Your task to perform on an android device: turn pop-ups on in chrome Image 0: 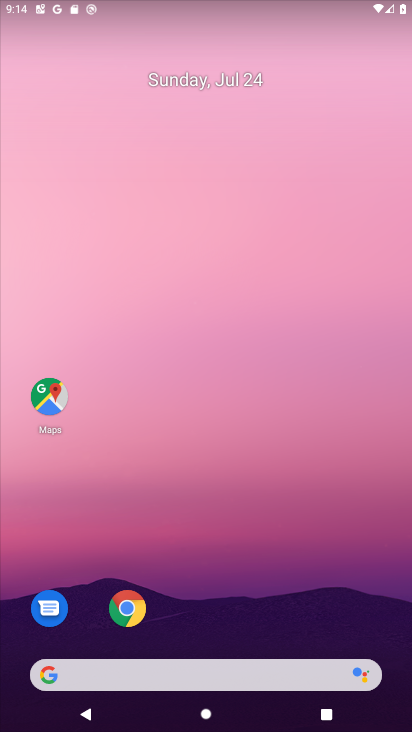
Step 0: click (94, 609)
Your task to perform on an android device: turn pop-ups on in chrome Image 1: 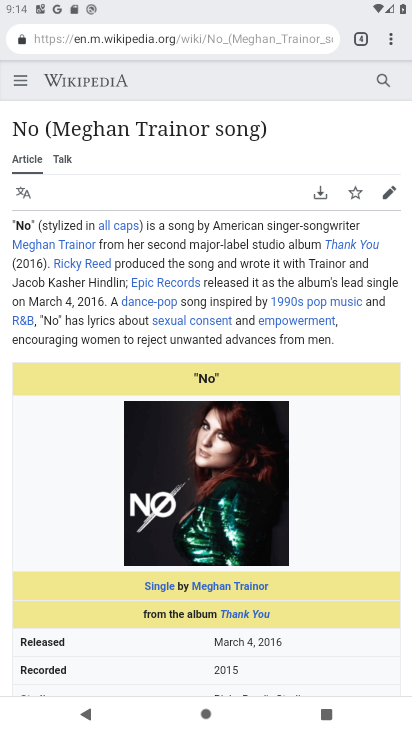
Step 1: click (136, 605)
Your task to perform on an android device: turn pop-ups on in chrome Image 2: 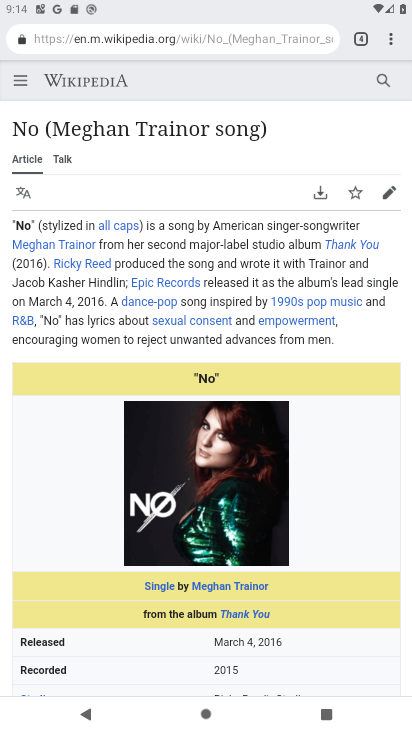
Step 2: click (135, 617)
Your task to perform on an android device: turn pop-ups on in chrome Image 3: 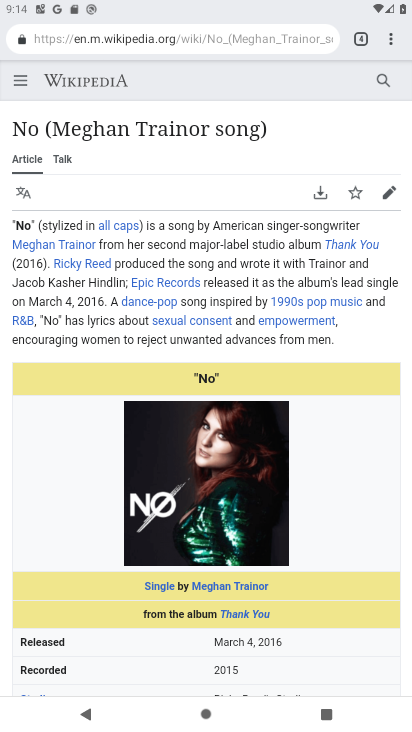
Step 3: click (135, 617)
Your task to perform on an android device: turn pop-ups on in chrome Image 4: 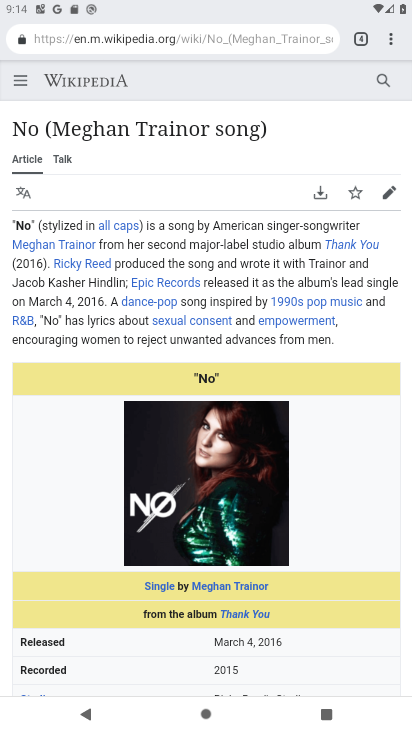
Step 4: click (400, 34)
Your task to perform on an android device: turn pop-ups on in chrome Image 5: 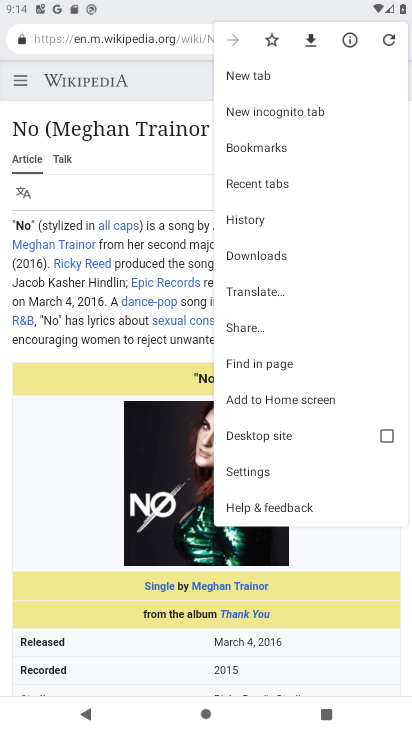
Step 5: click (271, 474)
Your task to perform on an android device: turn pop-ups on in chrome Image 6: 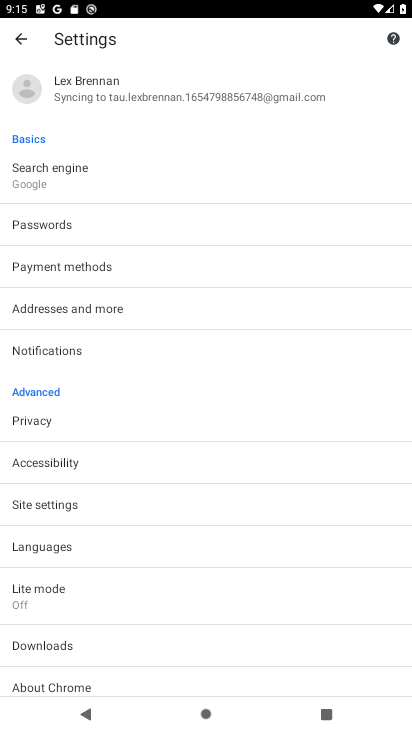
Step 6: click (76, 512)
Your task to perform on an android device: turn pop-ups on in chrome Image 7: 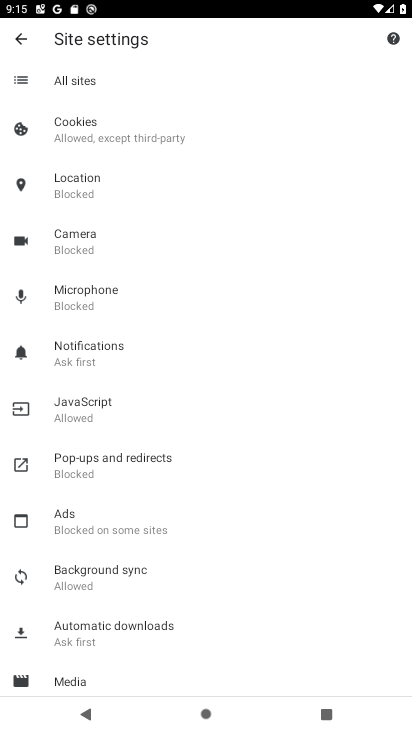
Step 7: click (145, 469)
Your task to perform on an android device: turn pop-ups on in chrome Image 8: 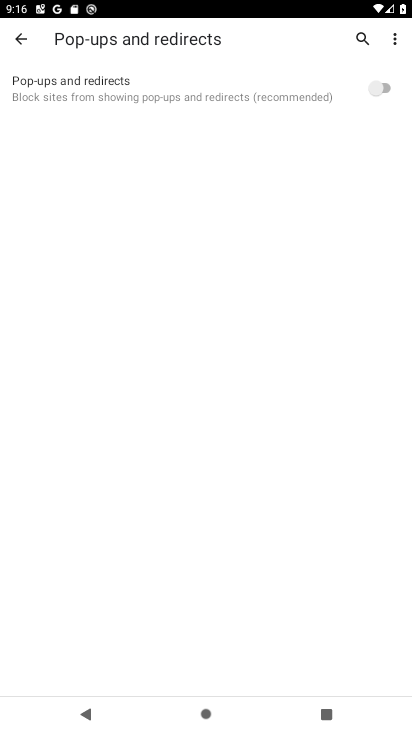
Step 8: click (379, 87)
Your task to perform on an android device: turn pop-ups on in chrome Image 9: 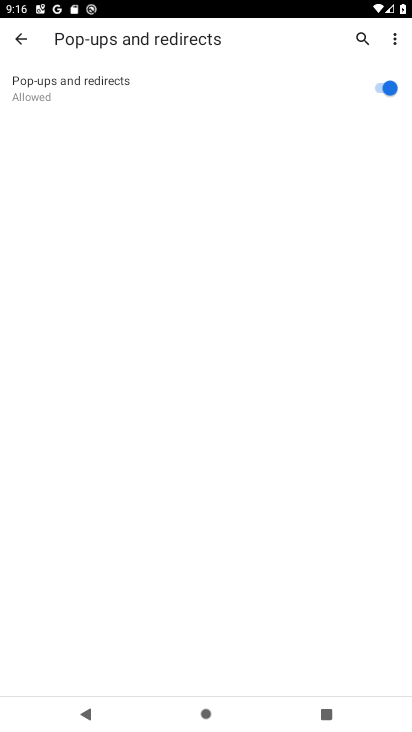
Step 9: task complete